Your task to perform on an android device: Go to settings Image 0: 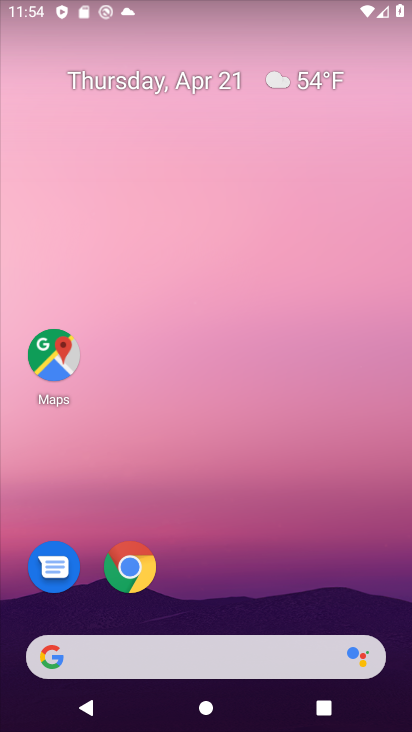
Step 0: drag from (253, 396) to (296, 114)
Your task to perform on an android device: Go to settings Image 1: 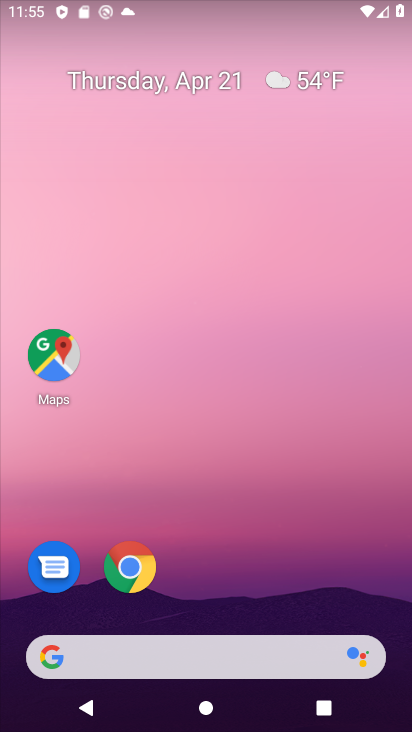
Step 1: drag from (266, 460) to (266, 87)
Your task to perform on an android device: Go to settings Image 2: 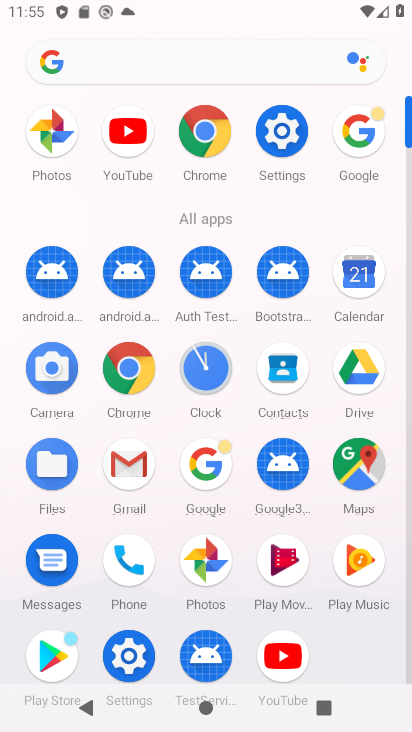
Step 2: click (143, 661)
Your task to perform on an android device: Go to settings Image 3: 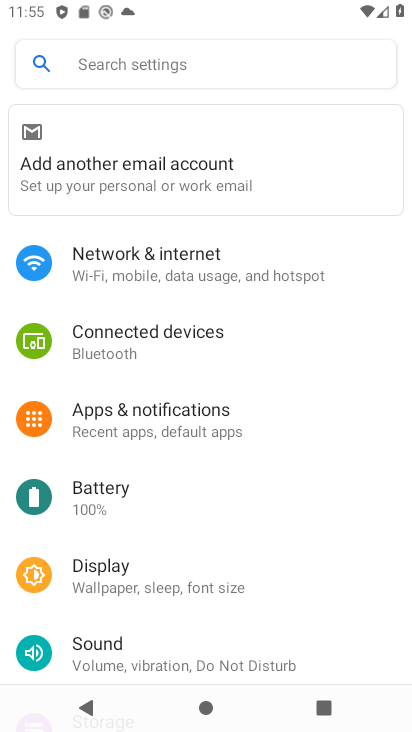
Step 3: task complete